Your task to perform on an android device: open app "Nova Launcher" (install if not already installed) and go to login screen Image 0: 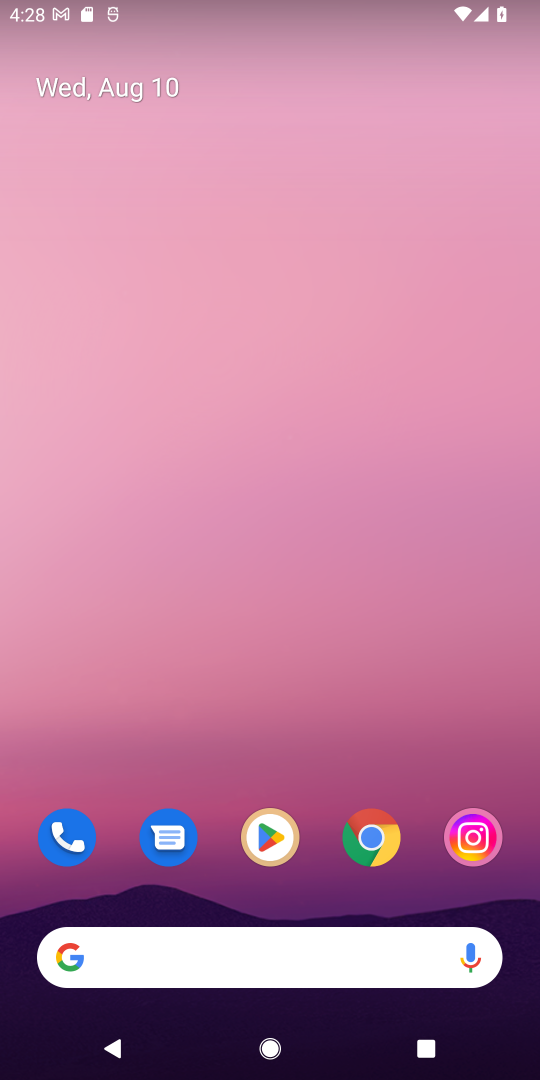
Step 0: press home button
Your task to perform on an android device: open app "Nova Launcher" (install if not already installed) and go to login screen Image 1: 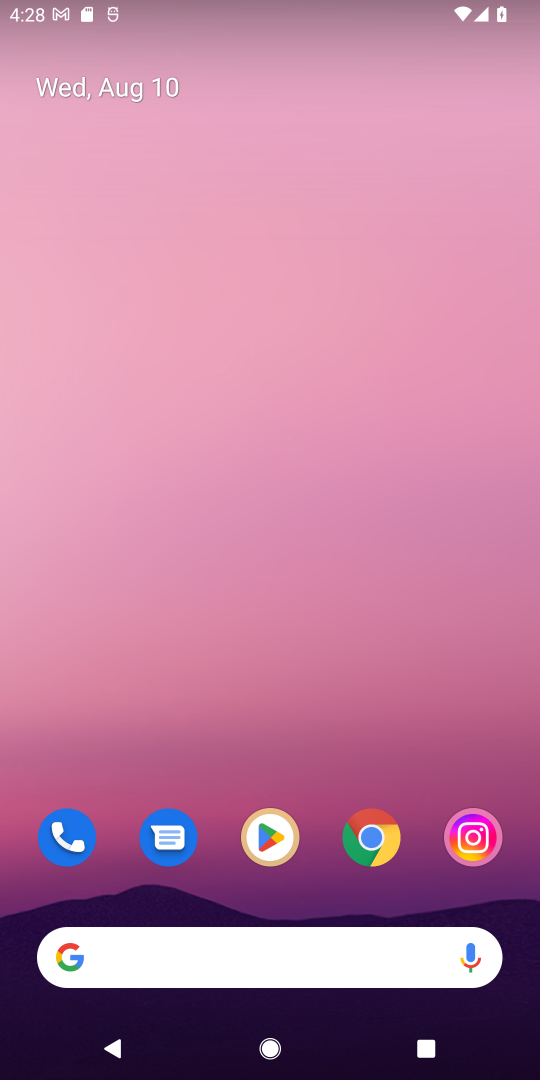
Step 1: click (263, 836)
Your task to perform on an android device: open app "Nova Launcher" (install if not already installed) and go to login screen Image 2: 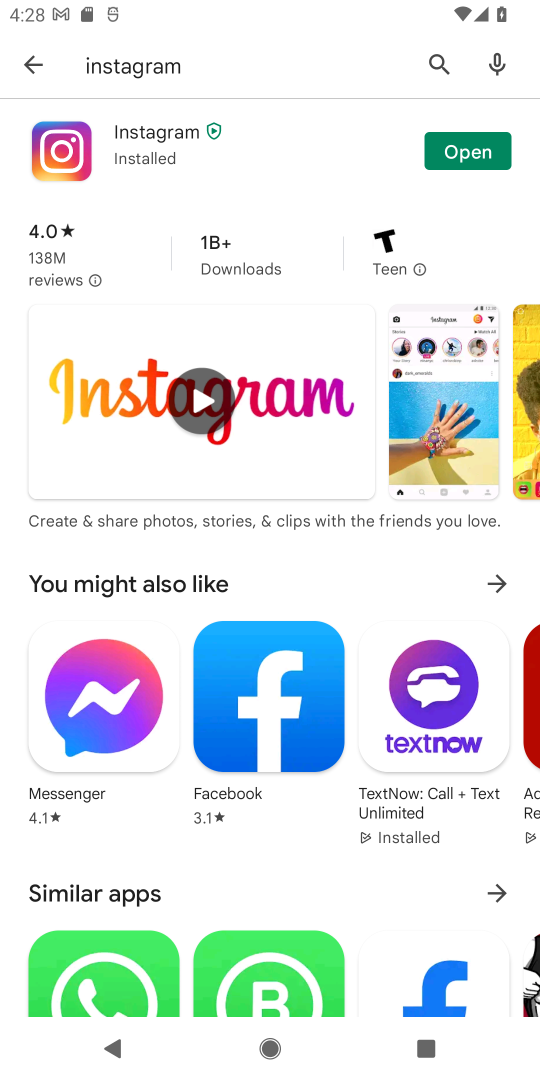
Step 2: click (435, 60)
Your task to perform on an android device: open app "Nova Launcher" (install if not already installed) and go to login screen Image 3: 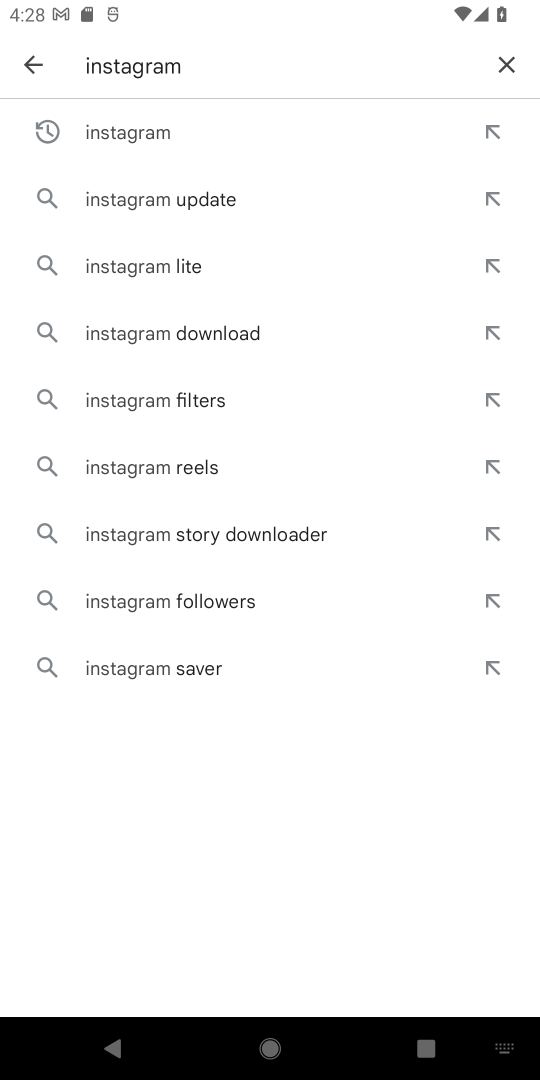
Step 3: click (511, 66)
Your task to perform on an android device: open app "Nova Launcher" (install if not already installed) and go to login screen Image 4: 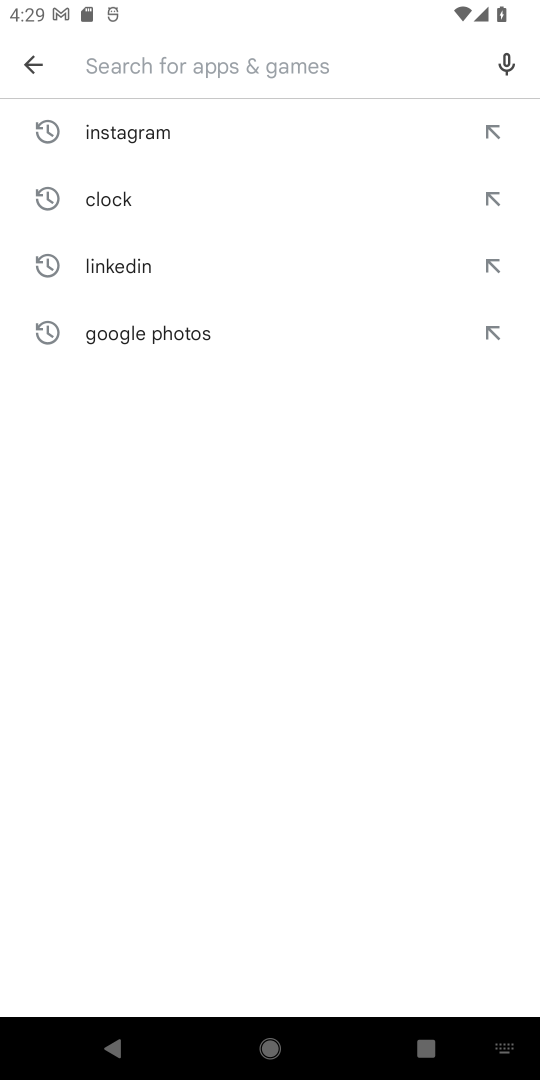
Step 4: type "Nova Launcher"
Your task to perform on an android device: open app "Nova Launcher" (install if not already installed) and go to login screen Image 5: 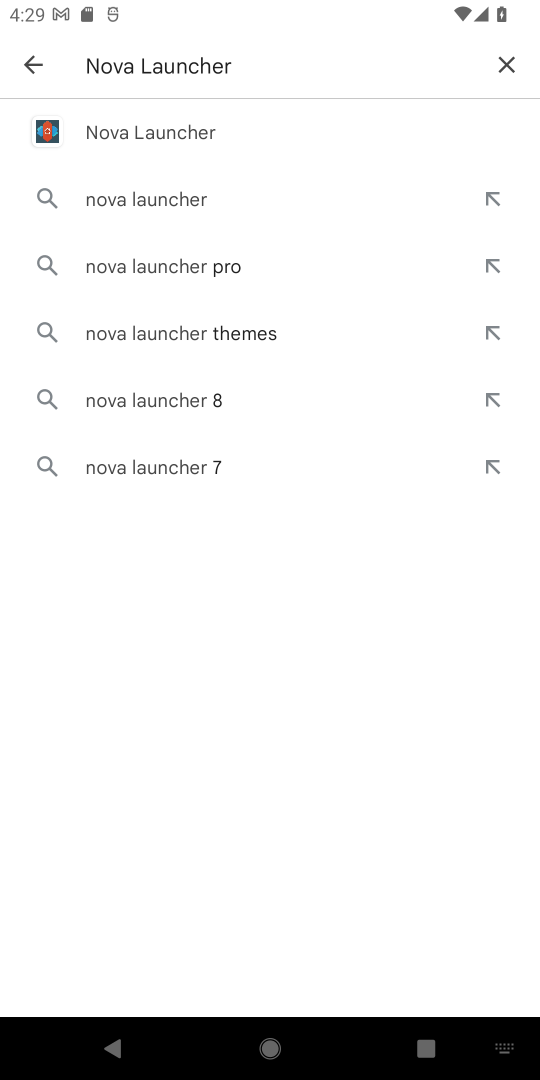
Step 5: click (154, 123)
Your task to perform on an android device: open app "Nova Launcher" (install if not already installed) and go to login screen Image 6: 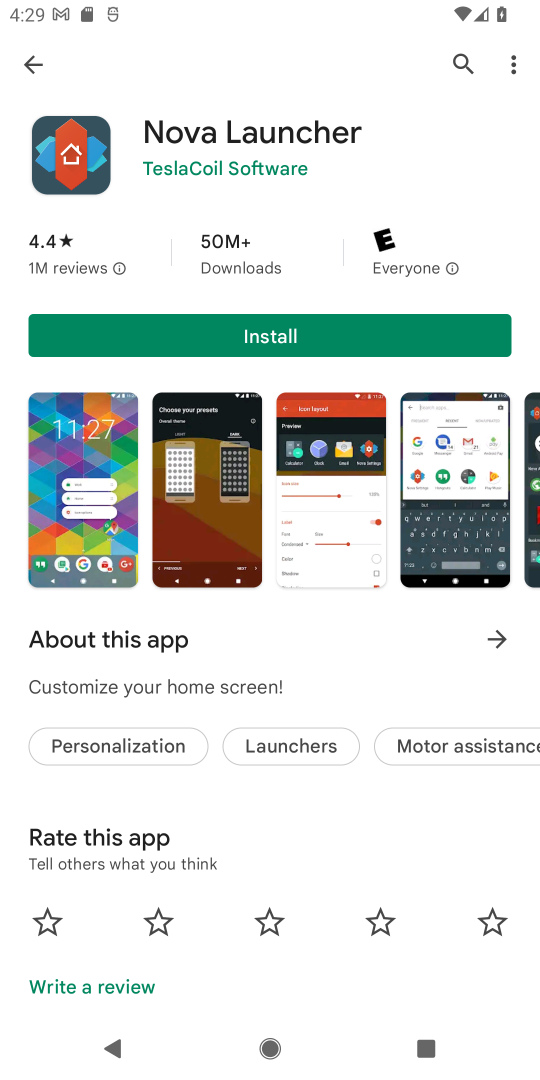
Step 6: click (281, 332)
Your task to perform on an android device: open app "Nova Launcher" (install if not already installed) and go to login screen Image 7: 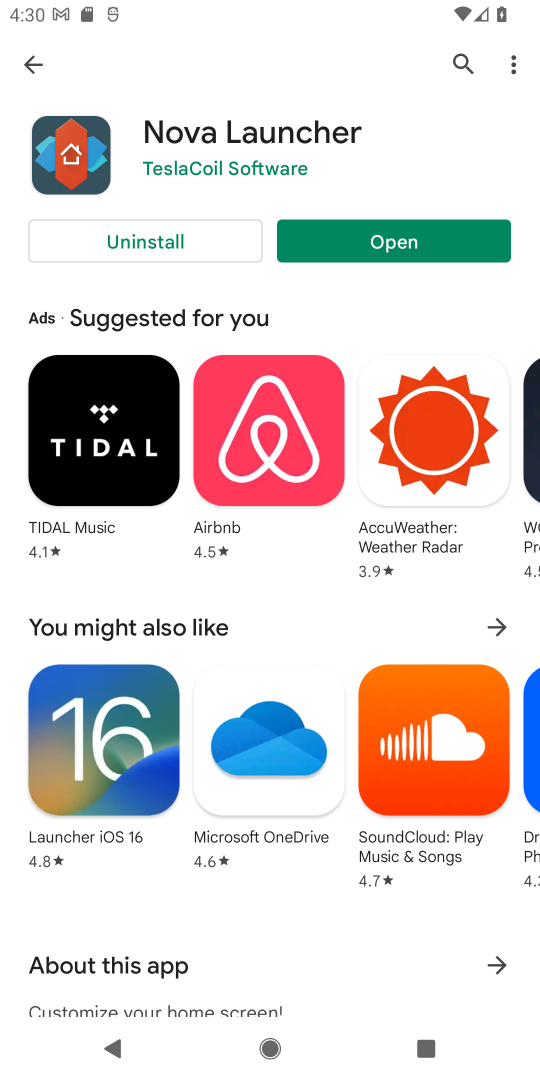
Step 7: click (391, 249)
Your task to perform on an android device: open app "Nova Launcher" (install if not already installed) and go to login screen Image 8: 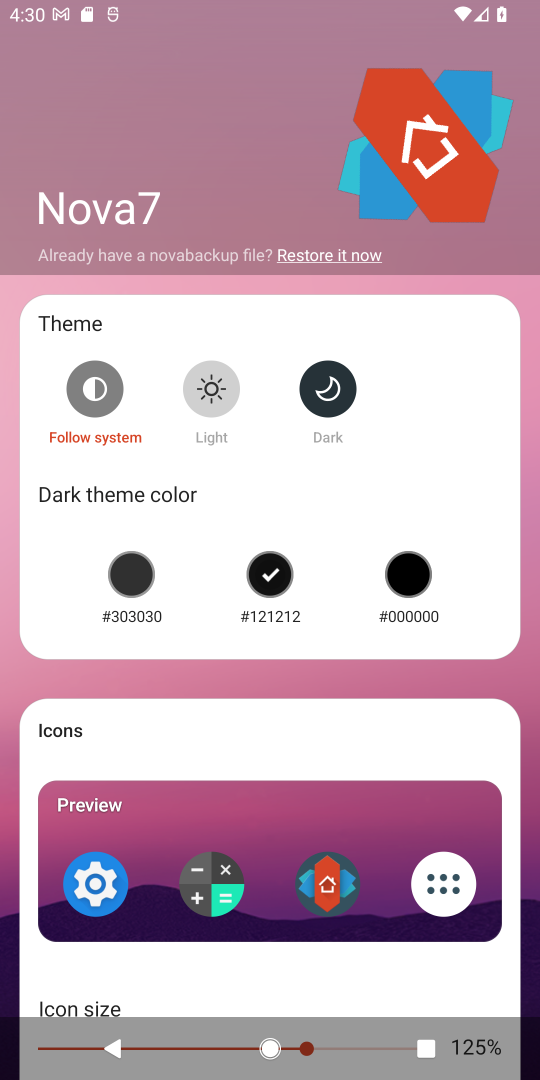
Step 8: task complete